Your task to perform on an android device: turn on priority inbox in the gmail app Image 0: 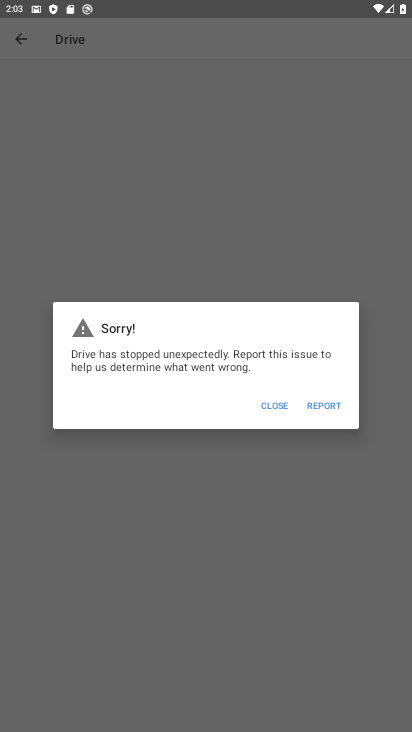
Step 0: press home button
Your task to perform on an android device: turn on priority inbox in the gmail app Image 1: 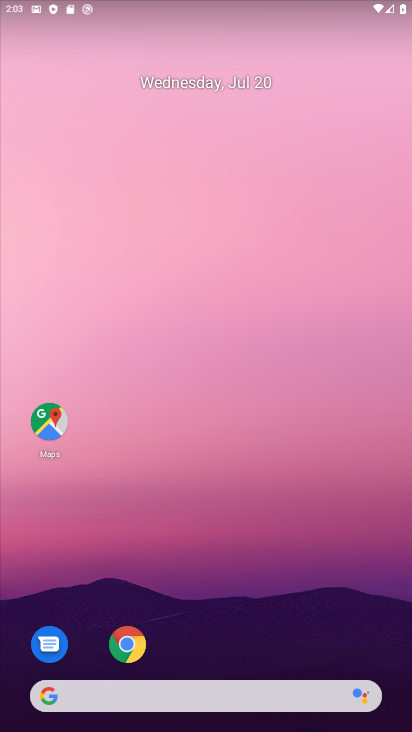
Step 1: drag from (272, 524) to (272, 45)
Your task to perform on an android device: turn on priority inbox in the gmail app Image 2: 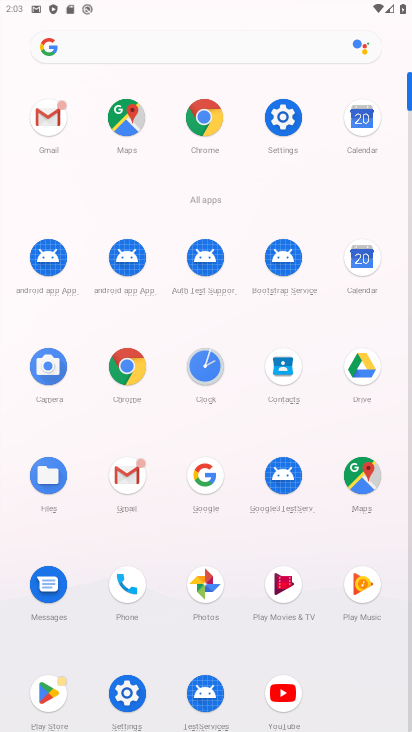
Step 2: click (37, 123)
Your task to perform on an android device: turn on priority inbox in the gmail app Image 3: 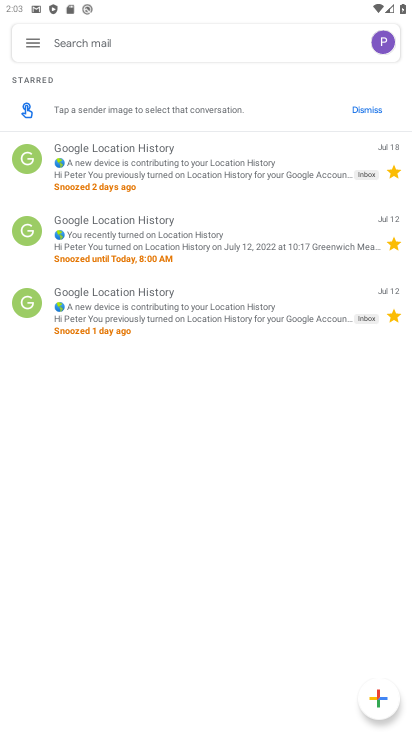
Step 3: click (37, 46)
Your task to perform on an android device: turn on priority inbox in the gmail app Image 4: 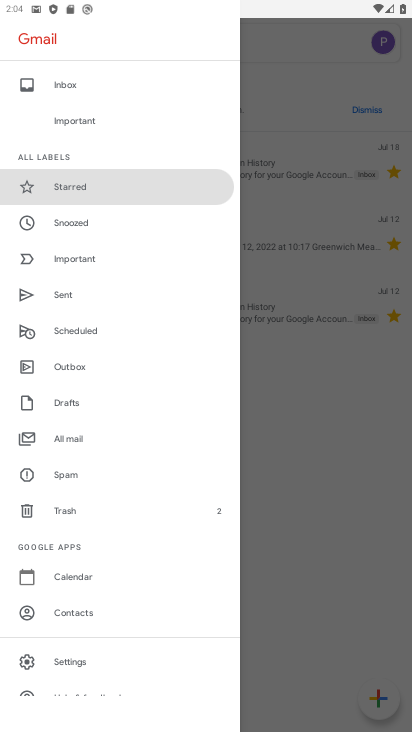
Step 4: click (23, 659)
Your task to perform on an android device: turn on priority inbox in the gmail app Image 5: 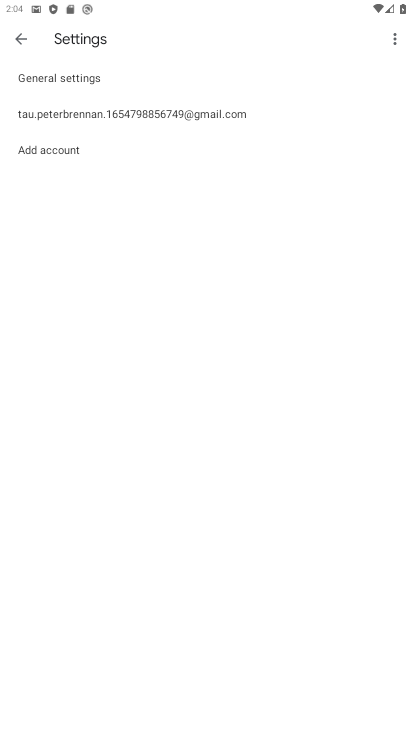
Step 5: click (77, 108)
Your task to perform on an android device: turn on priority inbox in the gmail app Image 6: 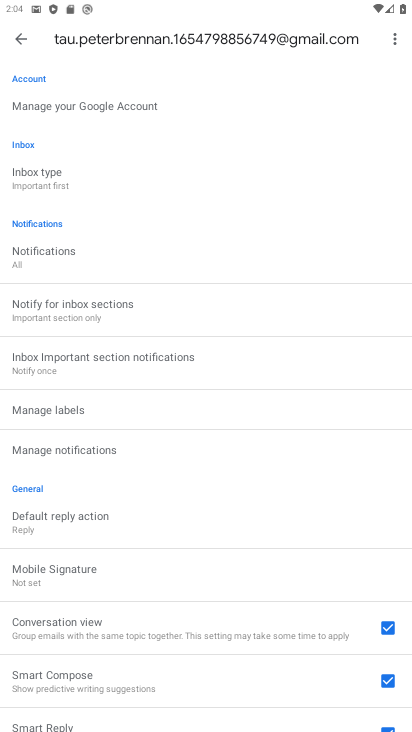
Step 6: click (36, 173)
Your task to perform on an android device: turn on priority inbox in the gmail app Image 7: 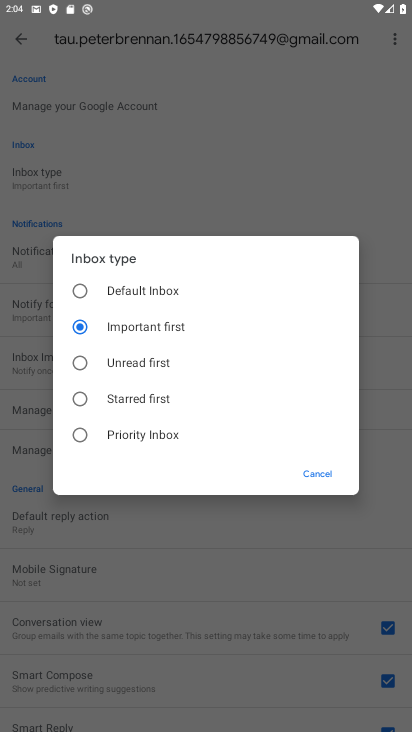
Step 7: click (140, 429)
Your task to perform on an android device: turn on priority inbox in the gmail app Image 8: 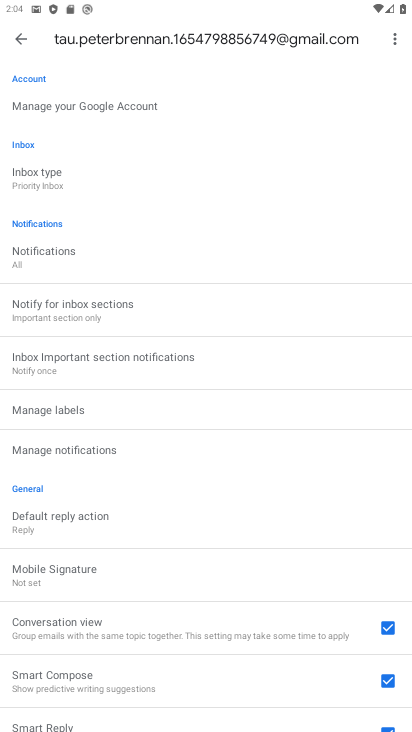
Step 8: task complete